Your task to perform on an android device: When is my next meeting? Image 0: 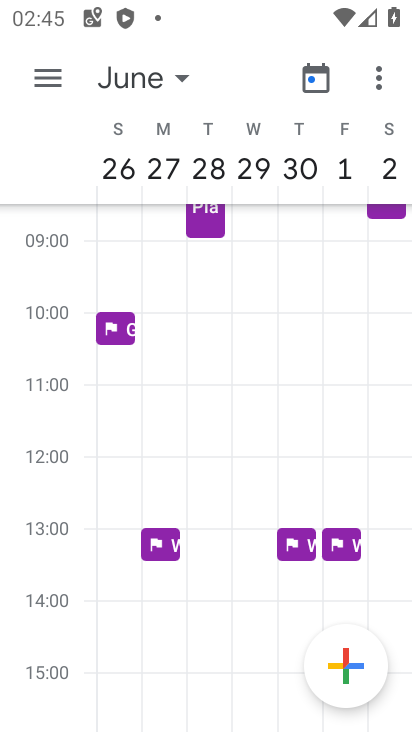
Step 0: press home button
Your task to perform on an android device: When is my next meeting? Image 1: 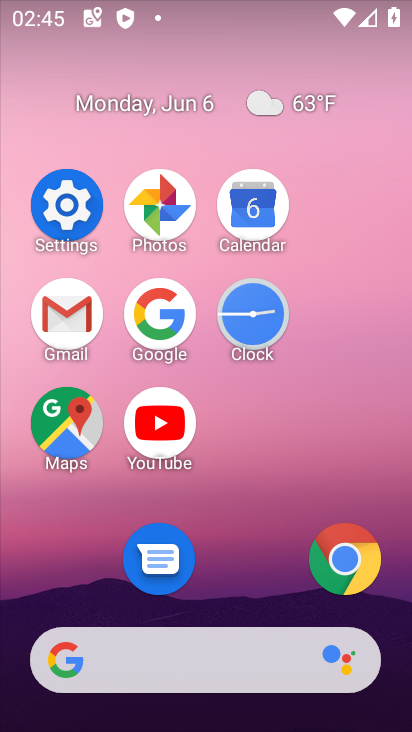
Step 1: click (235, 222)
Your task to perform on an android device: When is my next meeting? Image 2: 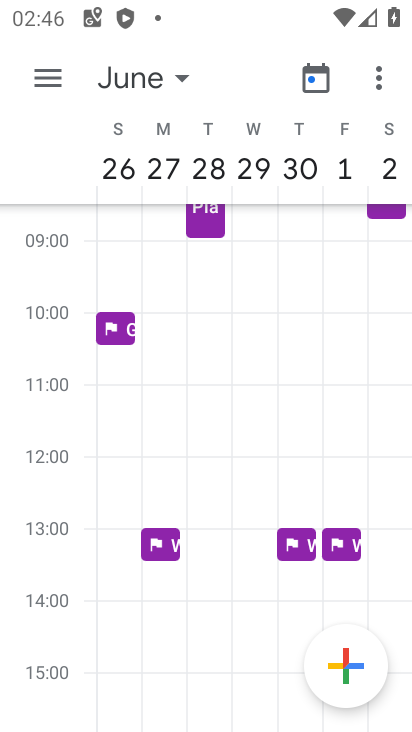
Step 2: click (157, 90)
Your task to perform on an android device: When is my next meeting? Image 3: 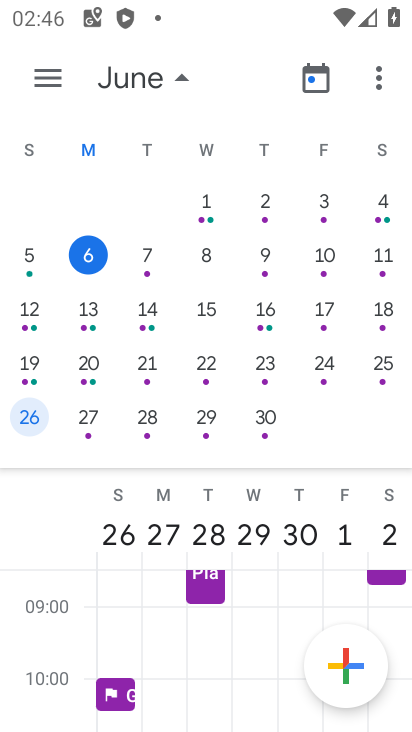
Step 3: click (153, 250)
Your task to perform on an android device: When is my next meeting? Image 4: 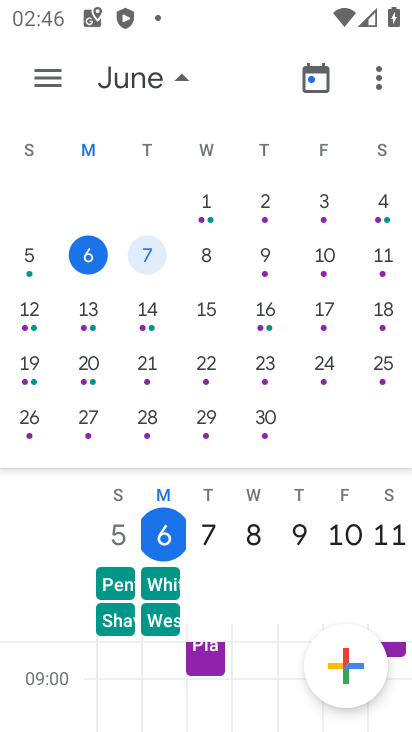
Step 4: click (213, 521)
Your task to perform on an android device: When is my next meeting? Image 5: 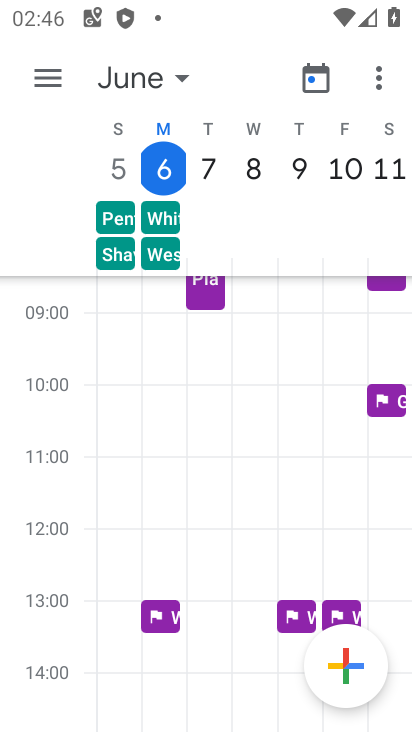
Step 5: task complete